Your task to perform on an android device: toggle notifications settings in the gmail app Image 0: 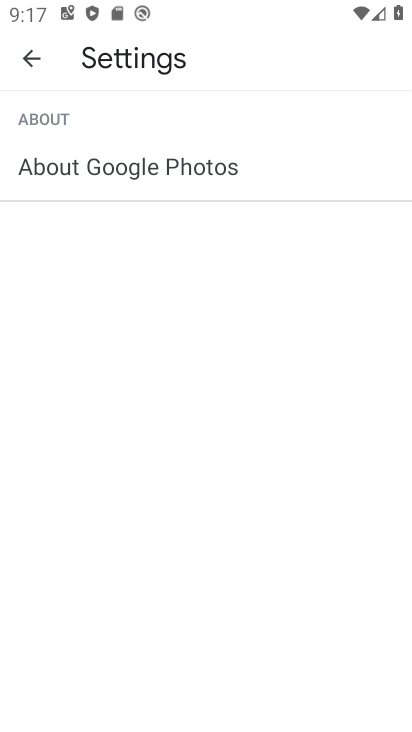
Step 0: press home button
Your task to perform on an android device: toggle notifications settings in the gmail app Image 1: 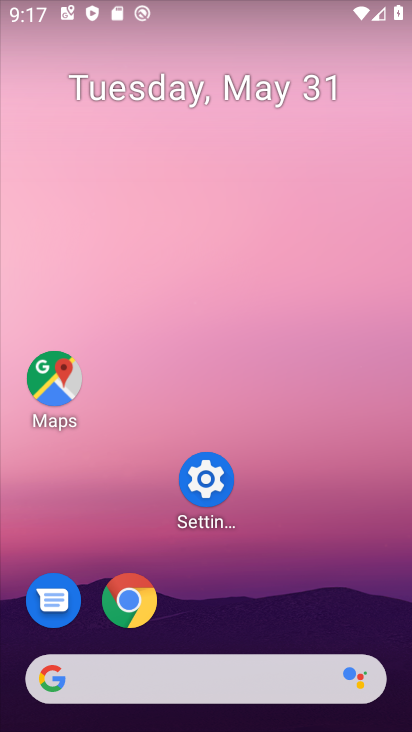
Step 1: drag from (332, 713) to (242, 167)
Your task to perform on an android device: toggle notifications settings in the gmail app Image 2: 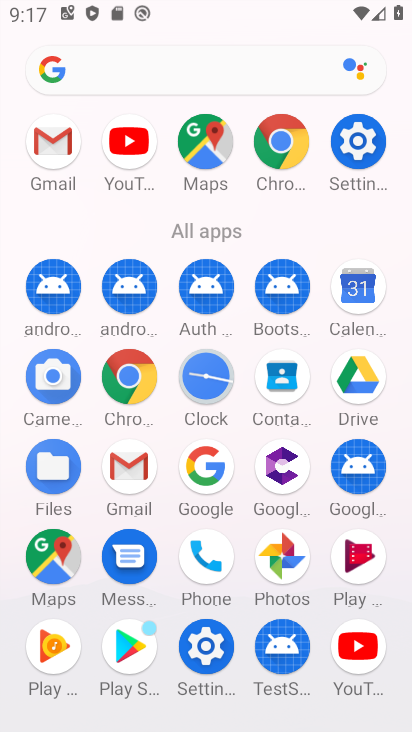
Step 2: click (121, 481)
Your task to perform on an android device: toggle notifications settings in the gmail app Image 3: 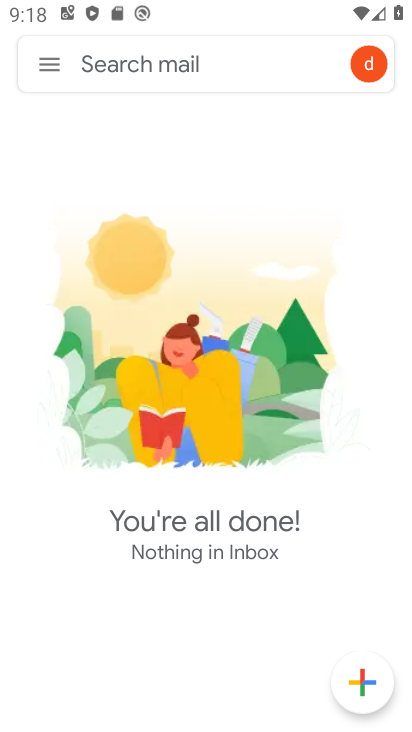
Step 3: click (42, 60)
Your task to perform on an android device: toggle notifications settings in the gmail app Image 4: 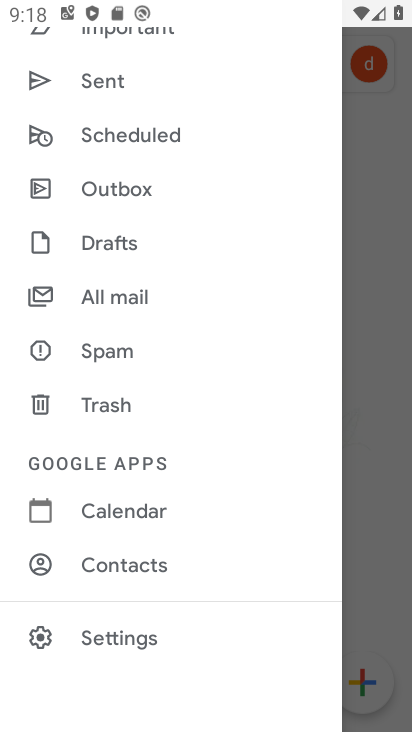
Step 4: click (123, 634)
Your task to perform on an android device: toggle notifications settings in the gmail app Image 5: 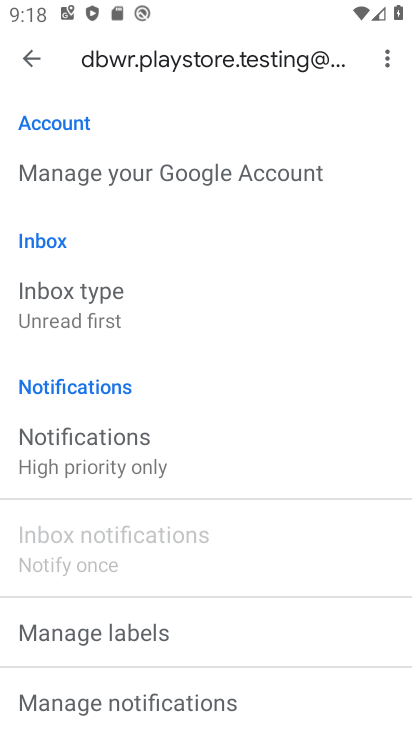
Step 5: click (132, 443)
Your task to perform on an android device: toggle notifications settings in the gmail app Image 6: 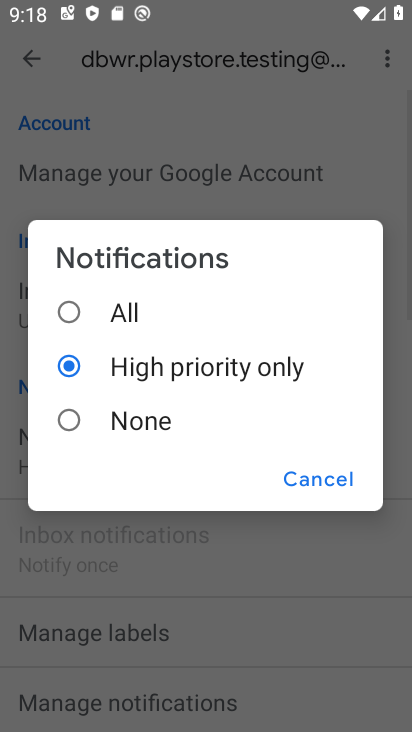
Step 6: click (127, 321)
Your task to perform on an android device: toggle notifications settings in the gmail app Image 7: 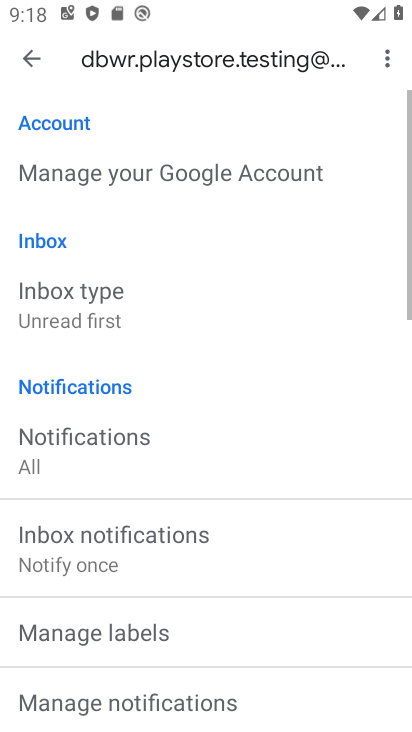
Step 7: task complete